Your task to perform on an android device: check storage Image 0: 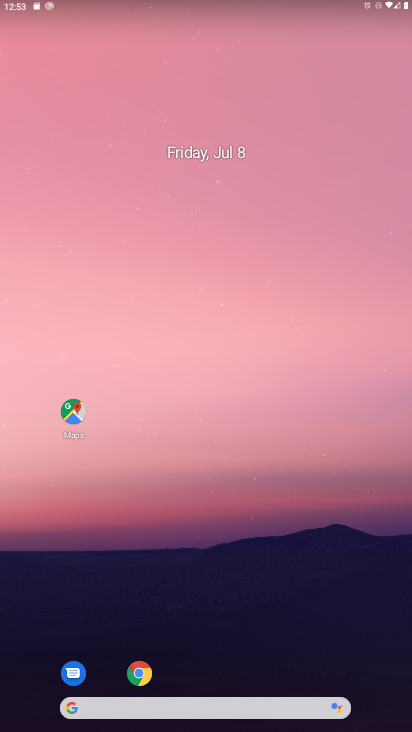
Step 0: drag from (388, 711) to (345, 142)
Your task to perform on an android device: check storage Image 1: 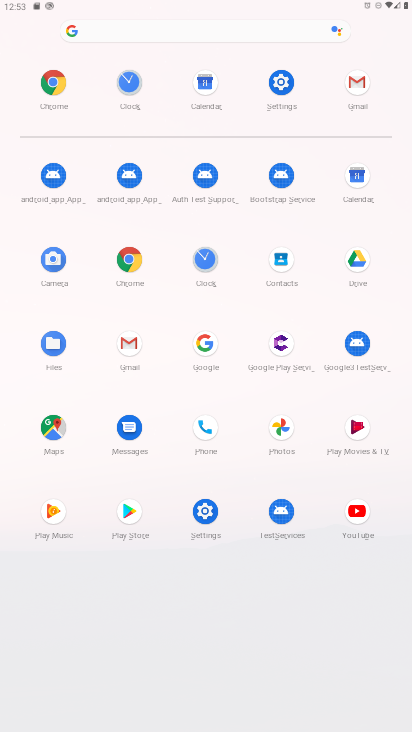
Step 1: click (285, 80)
Your task to perform on an android device: check storage Image 2: 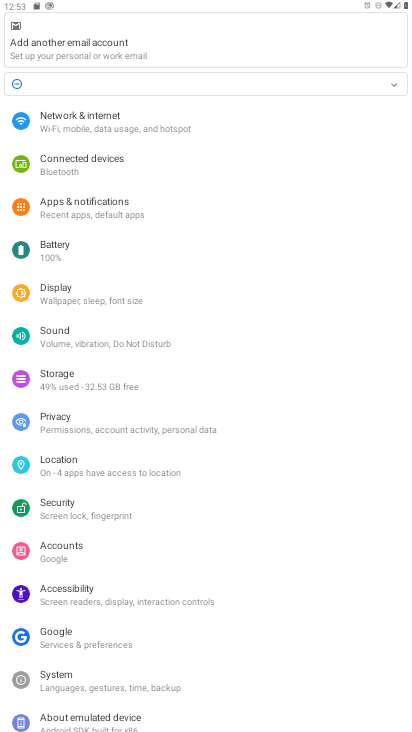
Step 2: click (48, 372)
Your task to perform on an android device: check storage Image 3: 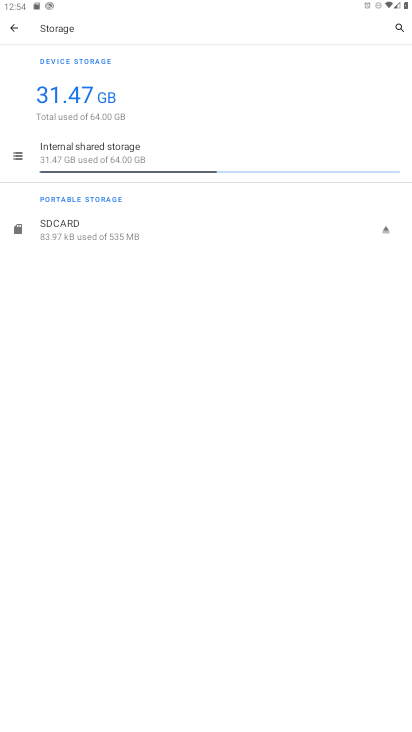
Step 3: click (86, 111)
Your task to perform on an android device: check storage Image 4: 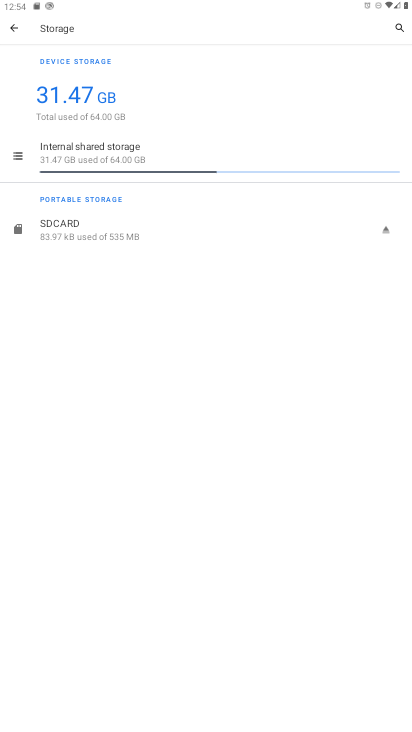
Step 4: click (81, 221)
Your task to perform on an android device: check storage Image 5: 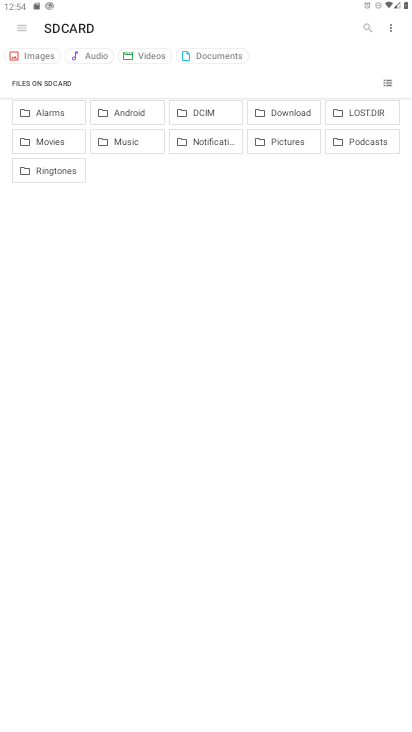
Step 5: task complete